Your task to perform on an android device: check storage Image 0: 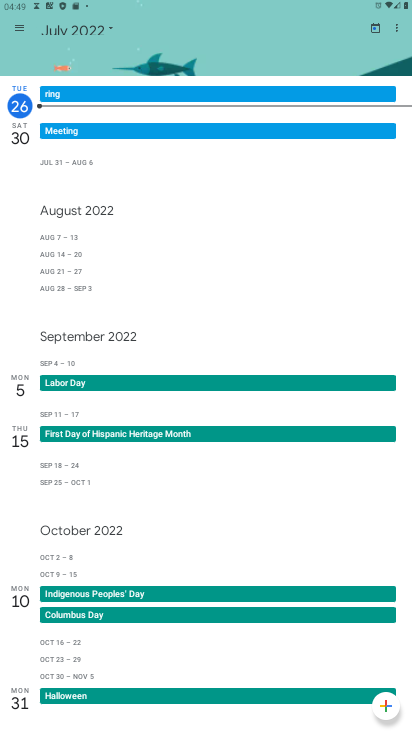
Step 0: press home button
Your task to perform on an android device: check storage Image 1: 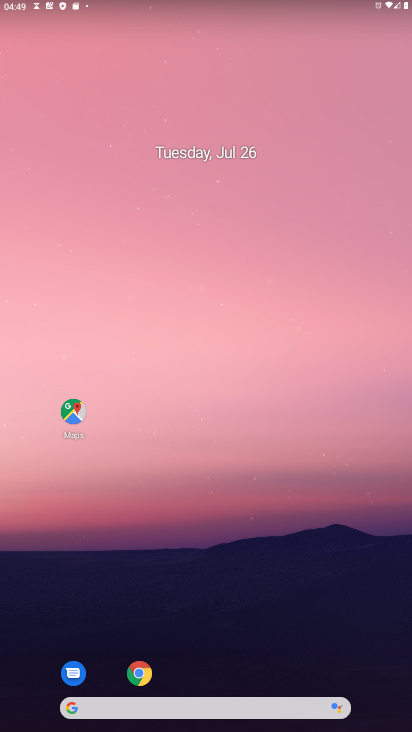
Step 1: drag from (173, 702) to (186, 90)
Your task to perform on an android device: check storage Image 2: 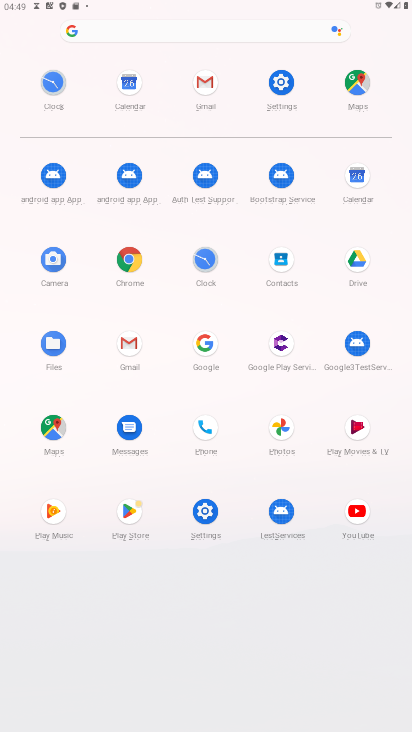
Step 2: click (280, 82)
Your task to perform on an android device: check storage Image 3: 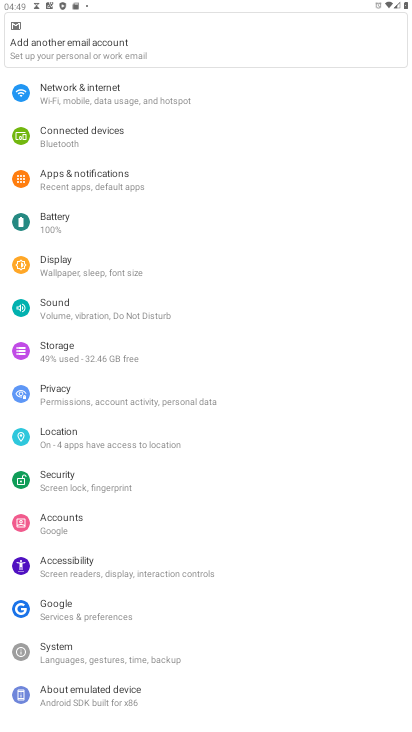
Step 3: click (101, 351)
Your task to perform on an android device: check storage Image 4: 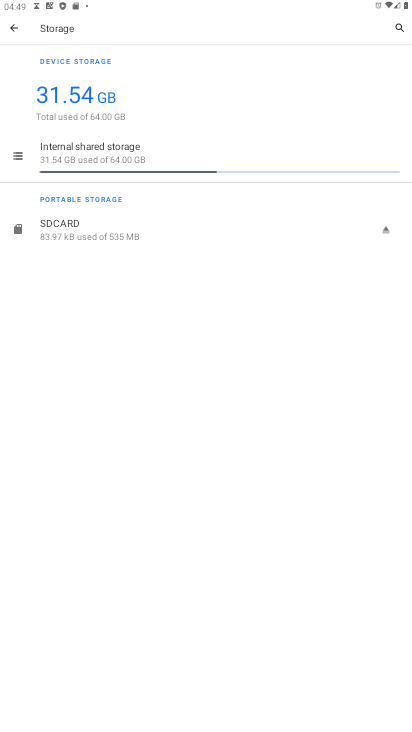
Step 4: task complete